Your task to perform on an android device: toggle show notifications on the lock screen Image 0: 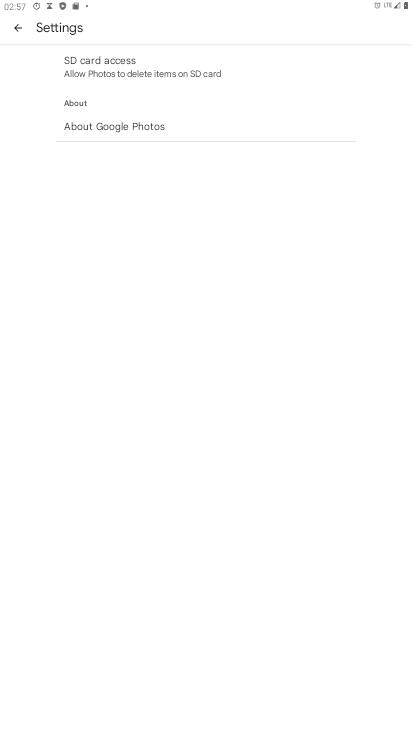
Step 0: press home button
Your task to perform on an android device: toggle show notifications on the lock screen Image 1: 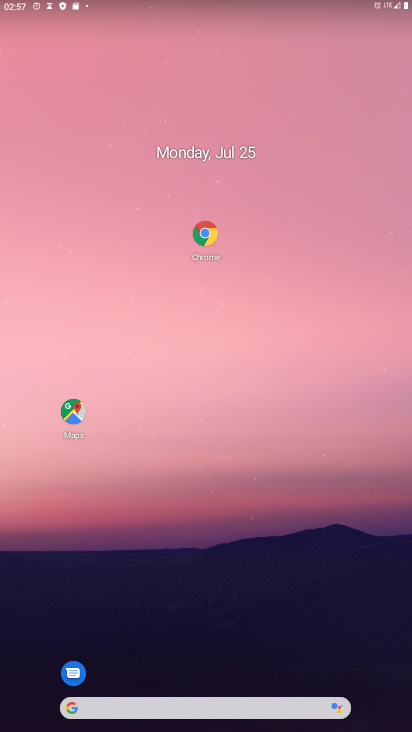
Step 1: drag from (290, 648) to (391, 188)
Your task to perform on an android device: toggle show notifications on the lock screen Image 2: 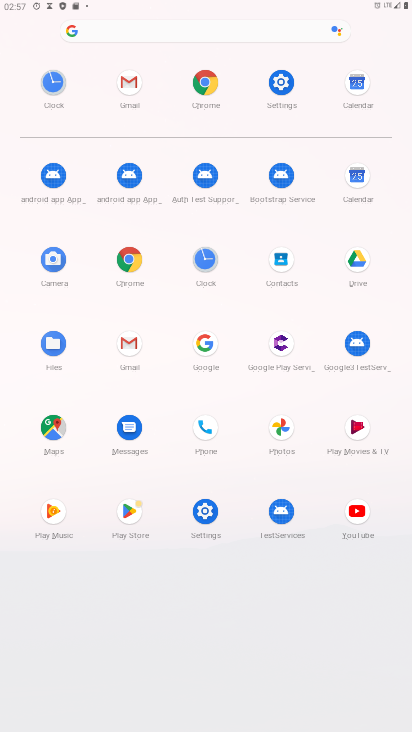
Step 2: click (283, 109)
Your task to perform on an android device: toggle show notifications on the lock screen Image 3: 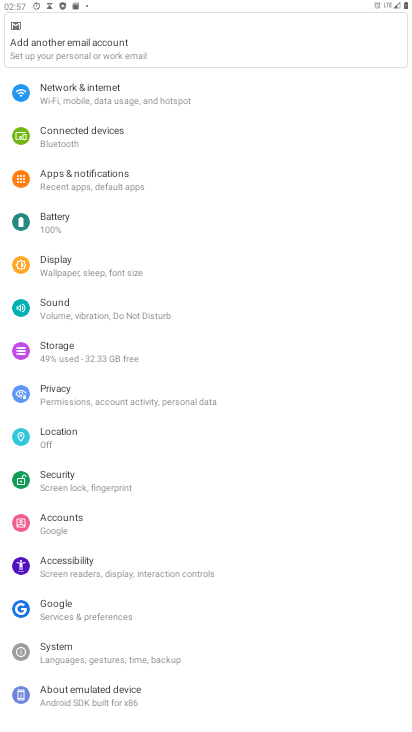
Step 3: click (78, 162)
Your task to perform on an android device: toggle show notifications on the lock screen Image 4: 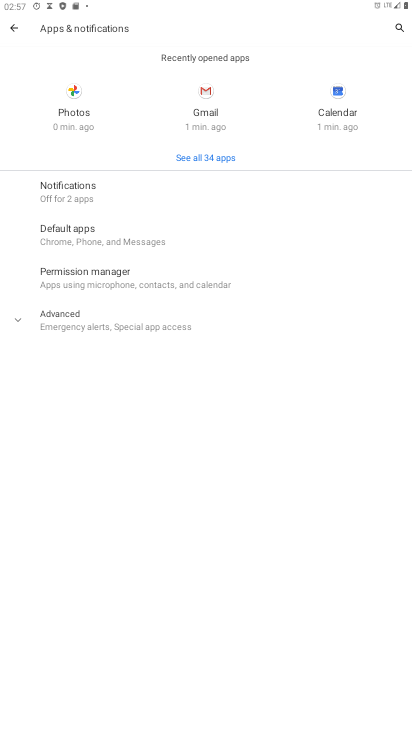
Step 4: click (100, 195)
Your task to perform on an android device: toggle show notifications on the lock screen Image 5: 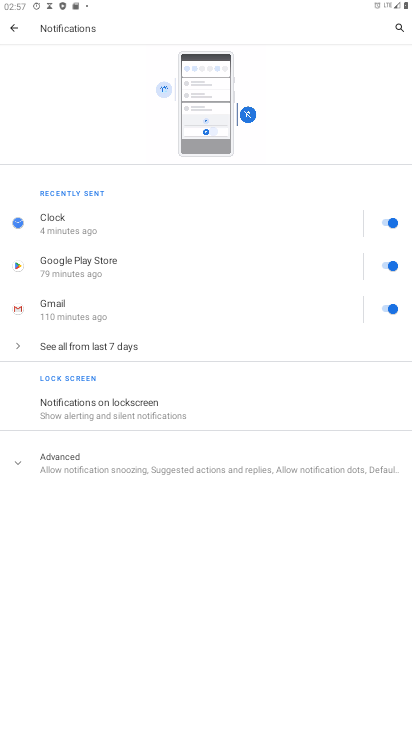
Step 5: click (126, 464)
Your task to perform on an android device: toggle show notifications on the lock screen Image 6: 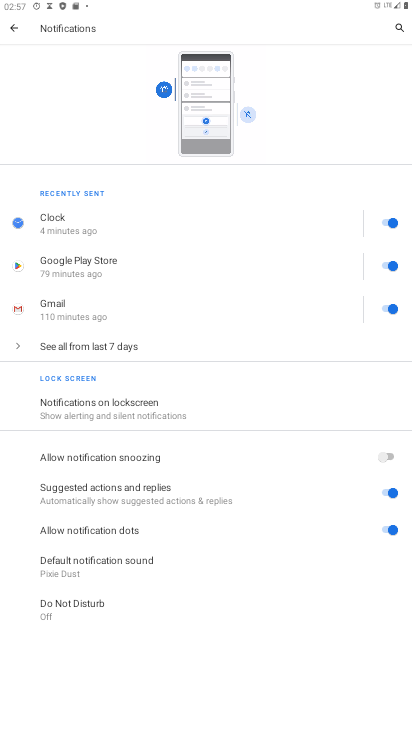
Step 6: click (136, 407)
Your task to perform on an android device: toggle show notifications on the lock screen Image 7: 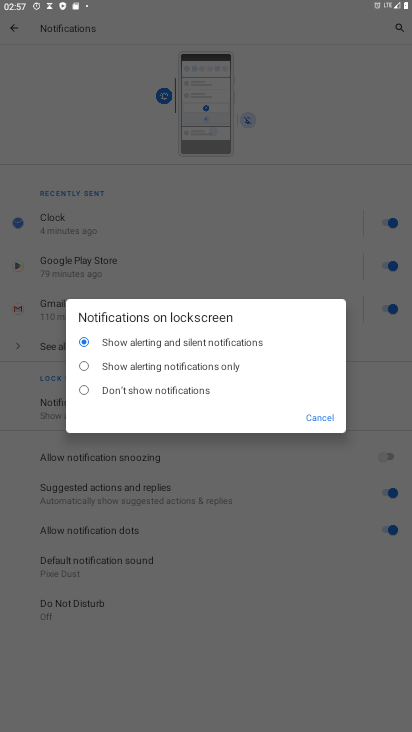
Step 7: click (80, 386)
Your task to perform on an android device: toggle show notifications on the lock screen Image 8: 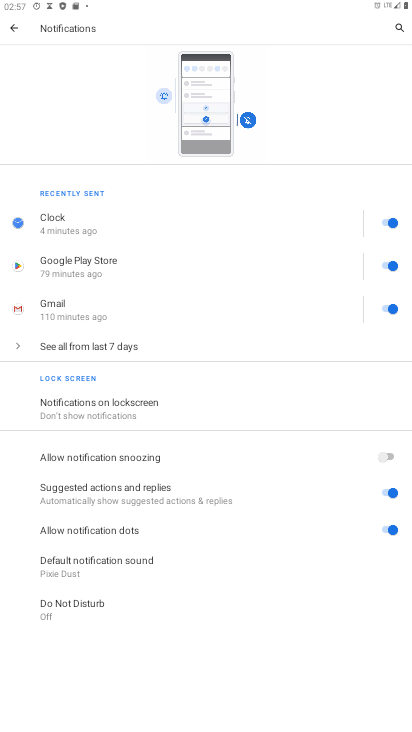
Step 8: task complete